Your task to perform on an android device: move a message to another label in the gmail app Image 0: 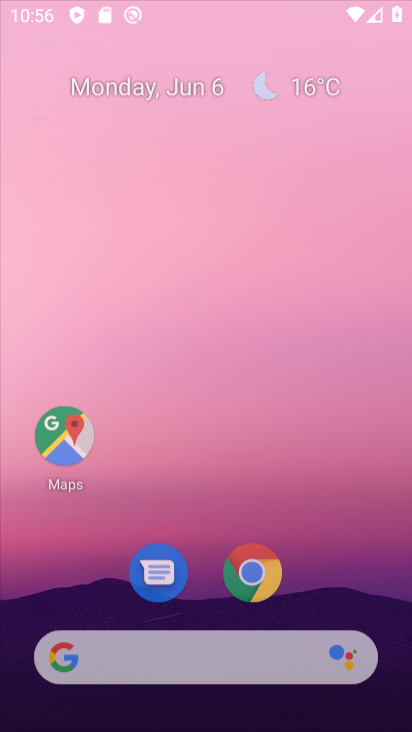
Step 0: click (256, 33)
Your task to perform on an android device: move a message to another label in the gmail app Image 1: 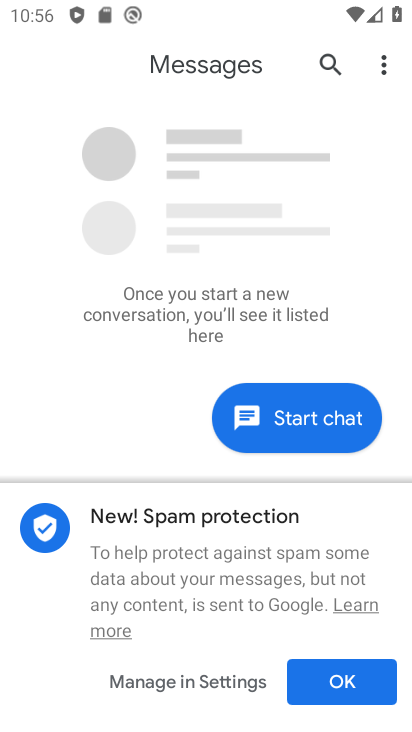
Step 1: press back button
Your task to perform on an android device: move a message to another label in the gmail app Image 2: 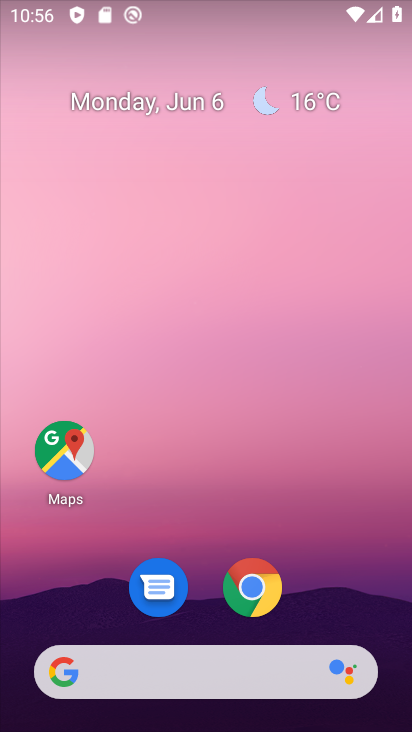
Step 2: drag from (318, 605) to (305, 8)
Your task to perform on an android device: move a message to another label in the gmail app Image 3: 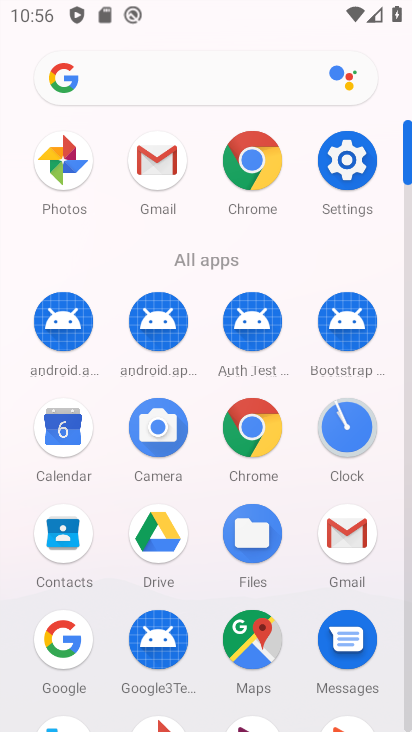
Step 3: click (345, 529)
Your task to perform on an android device: move a message to another label in the gmail app Image 4: 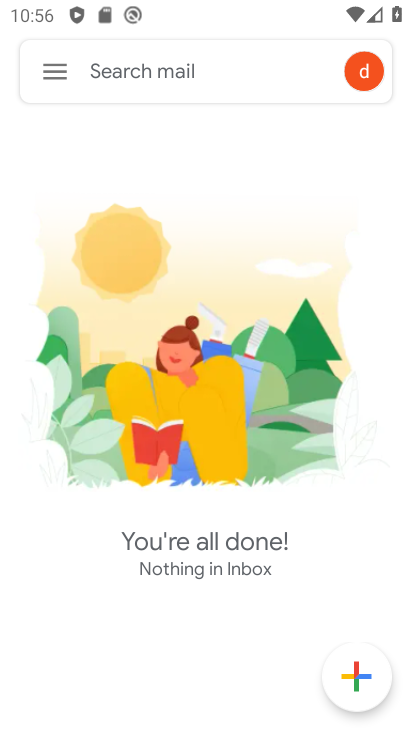
Step 4: click (59, 73)
Your task to perform on an android device: move a message to another label in the gmail app Image 5: 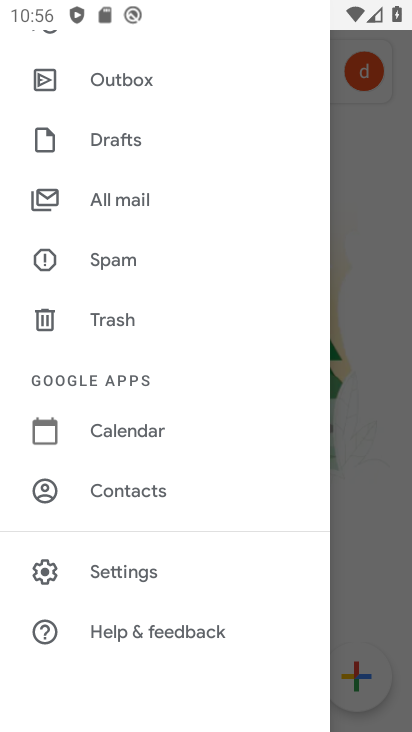
Step 5: drag from (189, 146) to (176, 510)
Your task to perform on an android device: move a message to another label in the gmail app Image 6: 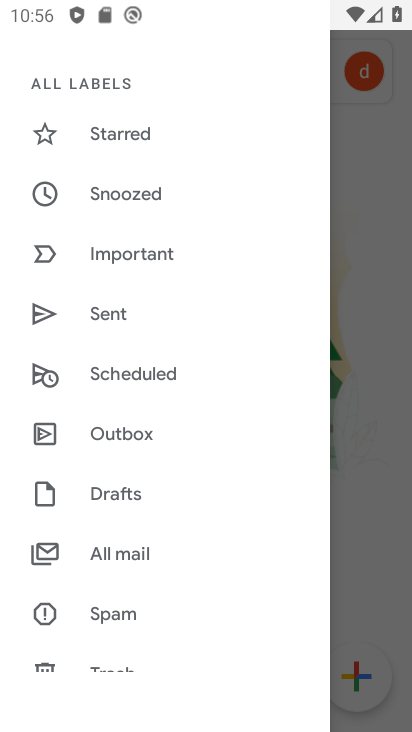
Step 6: click (99, 548)
Your task to perform on an android device: move a message to another label in the gmail app Image 7: 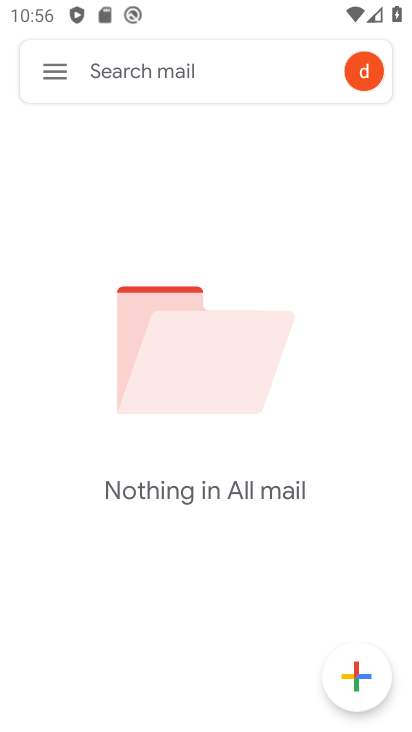
Step 7: click (40, 66)
Your task to perform on an android device: move a message to another label in the gmail app Image 8: 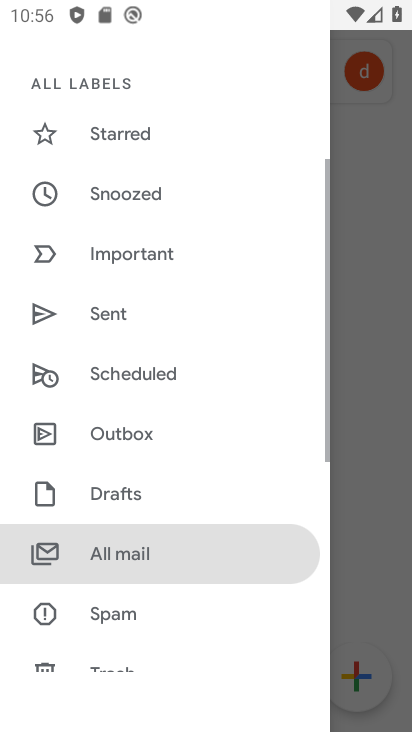
Step 8: drag from (187, 282) to (179, 526)
Your task to perform on an android device: move a message to another label in the gmail app Image 9: 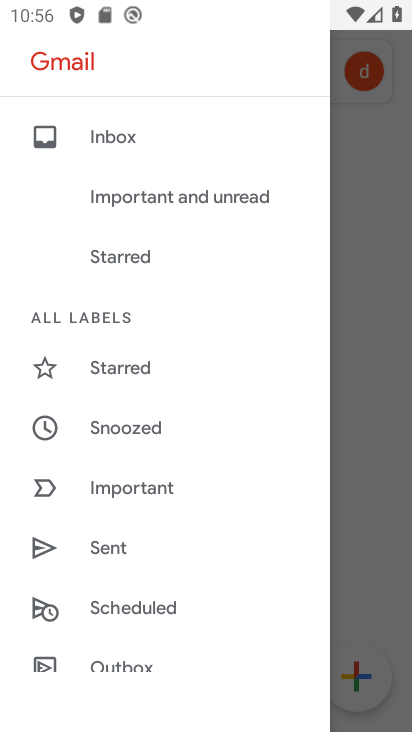
Step 9: click (137, 129)
Your task to perform on an android device: move a message to another label in the gmail app Image 10: 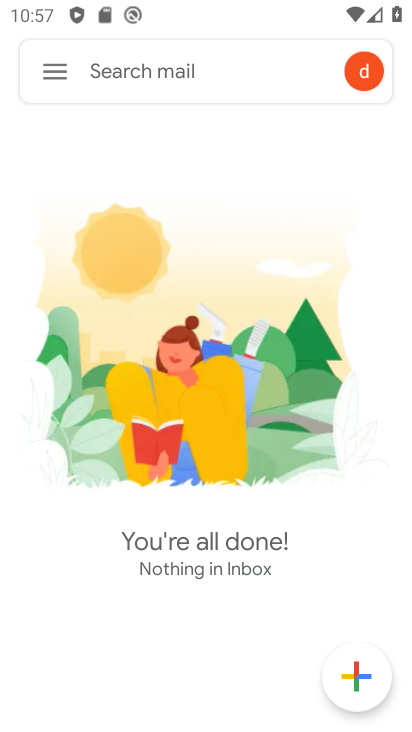
Step 10: task complete